Your task to perform on an android device: toggle improve location accuracy Image 0: 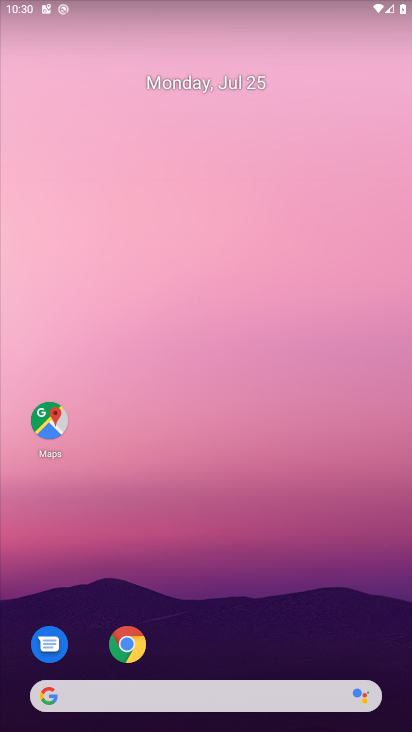
Step 0: press home button
Your task to perform on an android device: toggle improve location accuracy Image 1: 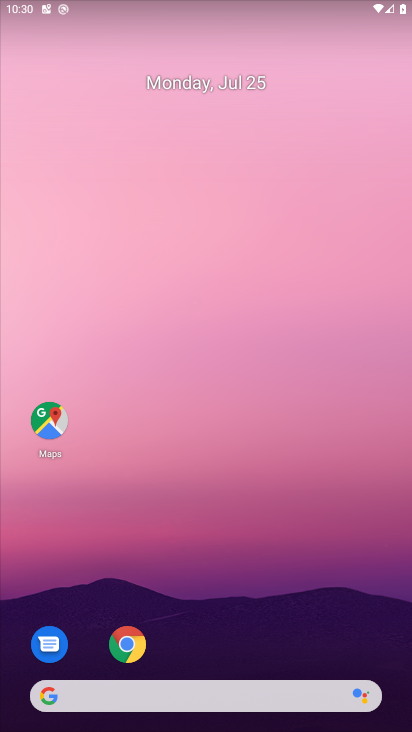
Step 1: drag from (277, 1) to (259, 48)
Your task to perform on an android device: toggle improve location accuracy Image 2: 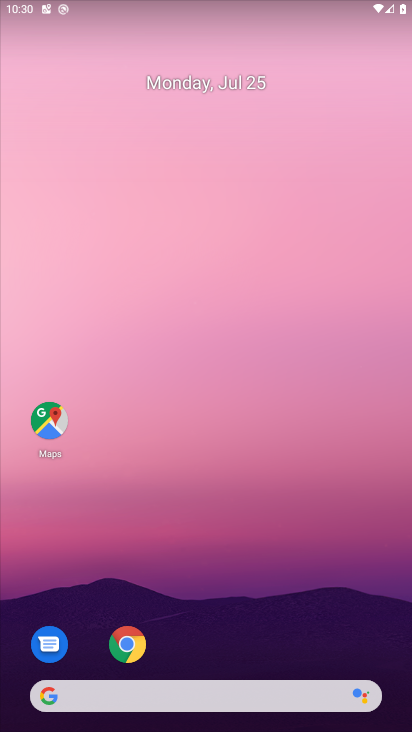
Step 2: drag from (353, 622) to (296, 107)
Your task to perform on an android device: toggle improve location accuracy Image 3: 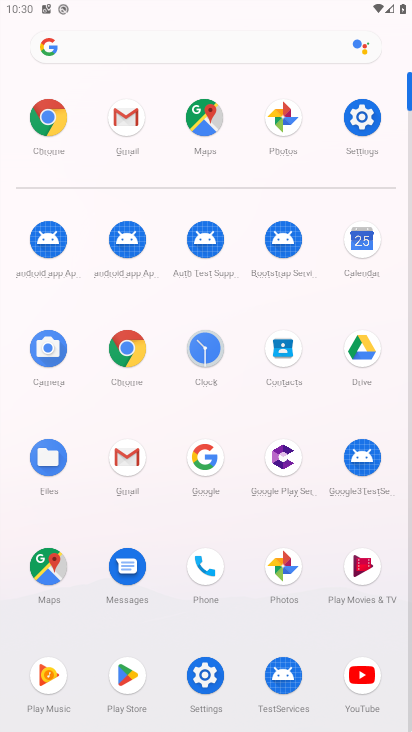
Step 3: click (349, 128)
Your task to perform on an android device: toggle improve location accuracy Image 4: 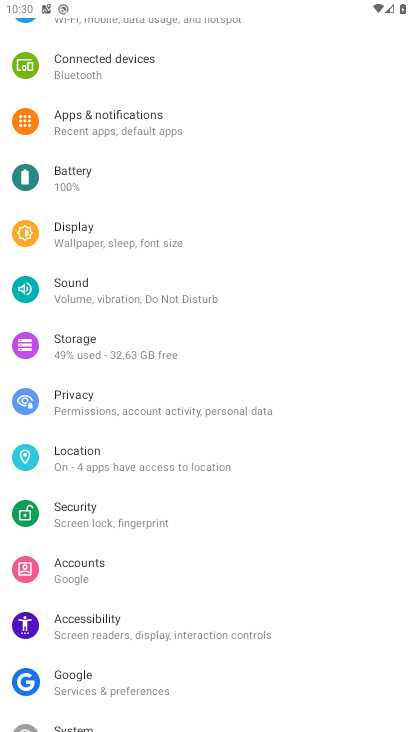
Step 4: click (25, 483)
Your task to perform on an android device: toggle improve location accuracy Image 5: 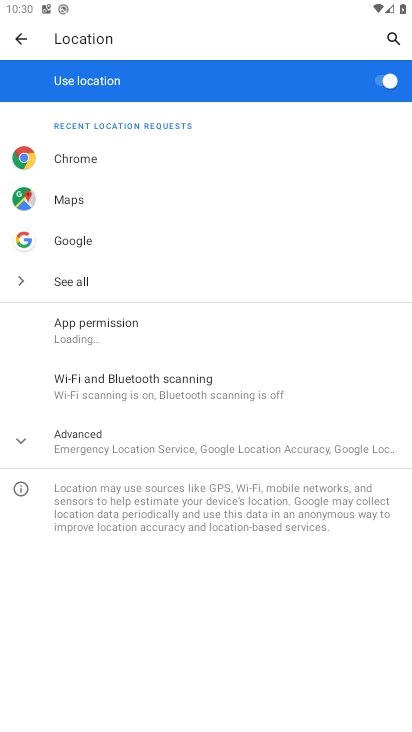
Step 5: click (74, 453)
Your task to perform on an android device: toggle improve location accuracy Image 6: 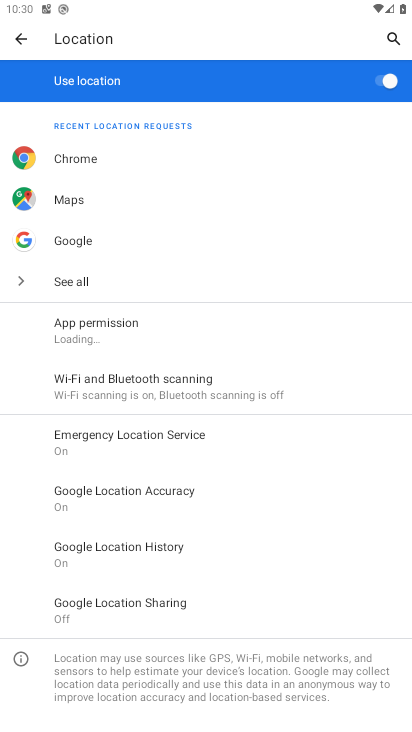
Step 6: click (81, 501)
Your task to perform on an android device: toggle improve location accuracy Image 7: 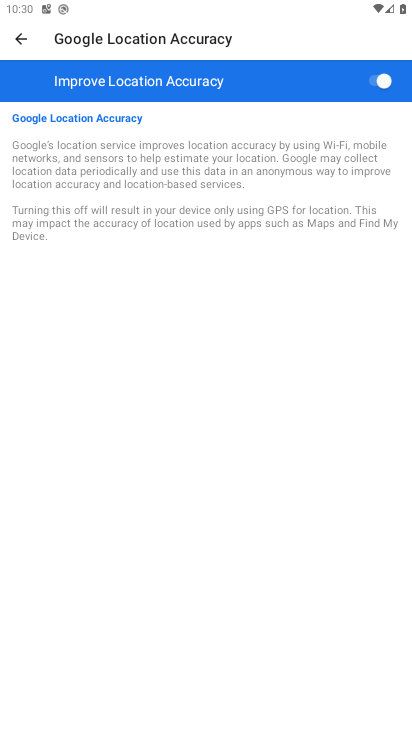
Step 7: click (184, 86)
Your task to perform on an android device: toggle improve location accuracy Image 8: 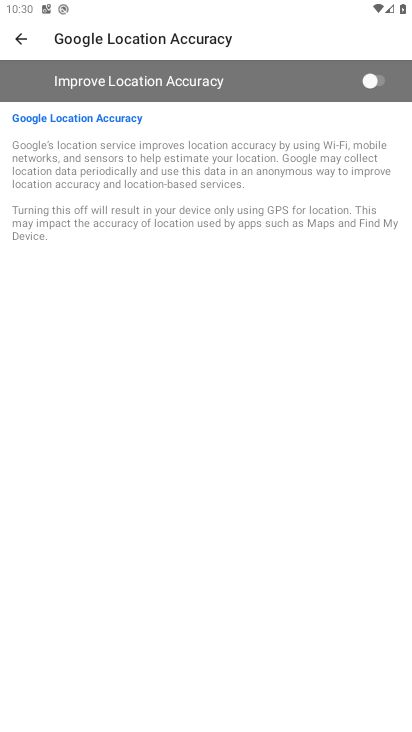
Step 8: task complete